Your task to perform on an android device: turn on javascript in the chrome app Image 0: 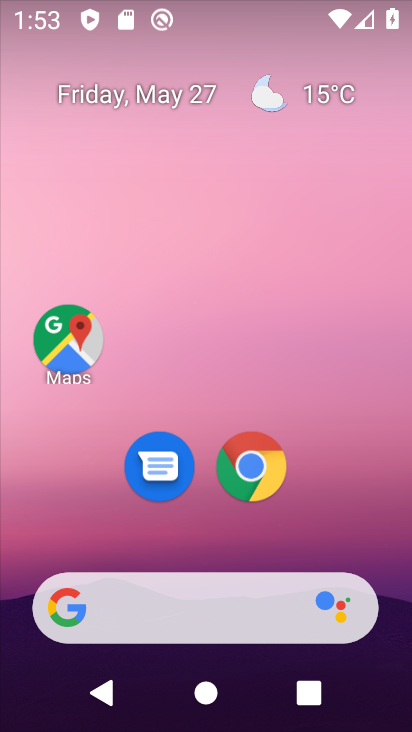
Step 0: drag from (352, 472) to (337, 155)
Your task to perform on an android device: turn on javascript in the chrome app Image 1: 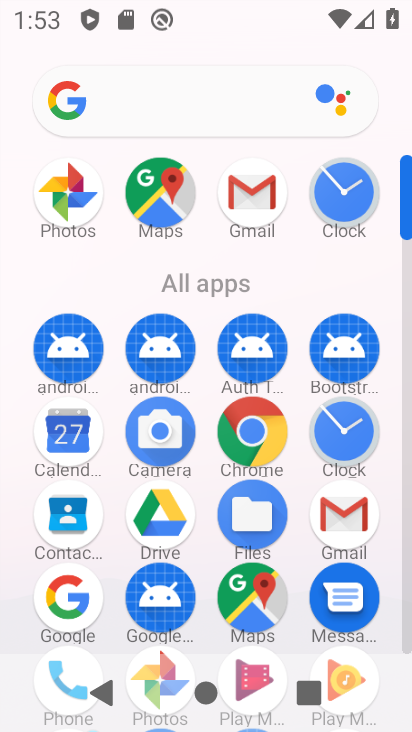
Step 1: drag from (358, 454) to (361, 165)
Your task to perform on an android device: turn on javascript in the chrome app Image 2: 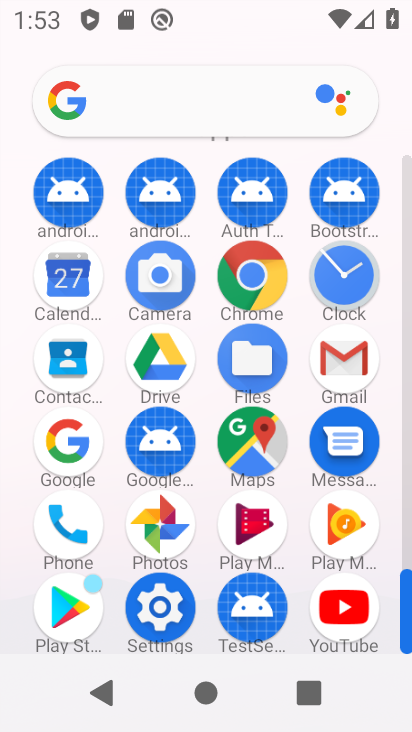
Step 2: click (229, 270)
Your task to perform on an android device: turn on javascript in the chrome app Image 3: 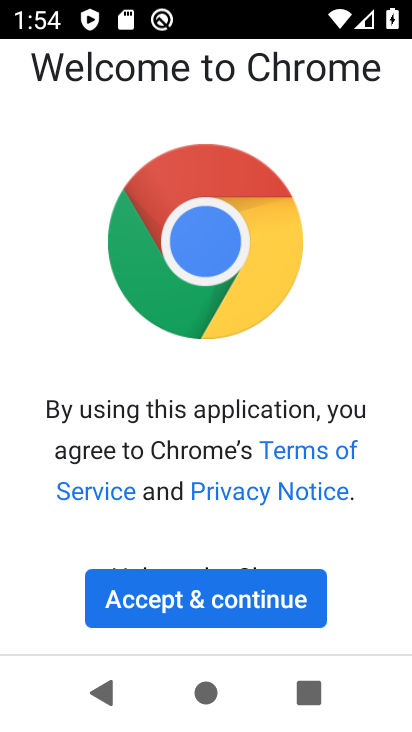
Step 3: click (242, 599)
Your task to perform on an android device: turn on javascript in the chrome app Image 4: 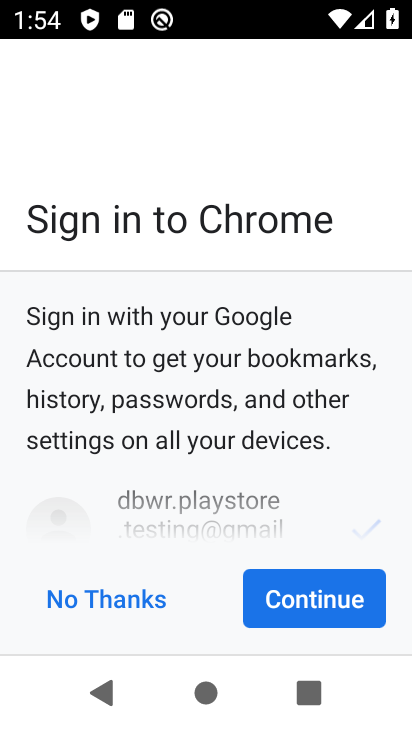
Step 4: click (282, 602)
Your task to perform on an android device: turn on javascript in the chrome app Image 5: 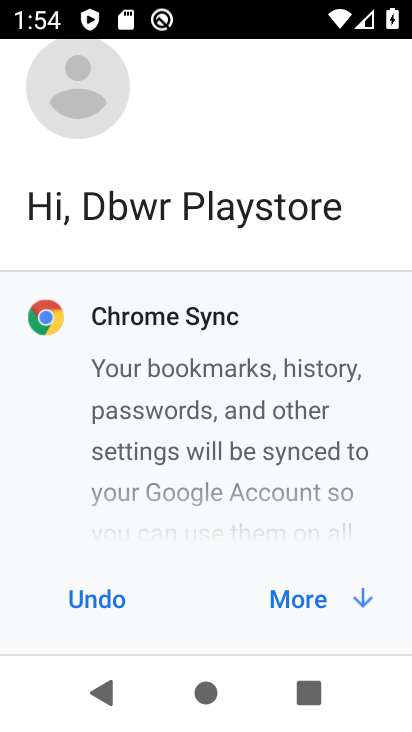
Step 5: click (282, 602)
Your task to perform on an android device: turn on javascript in the chrome app Image 6: 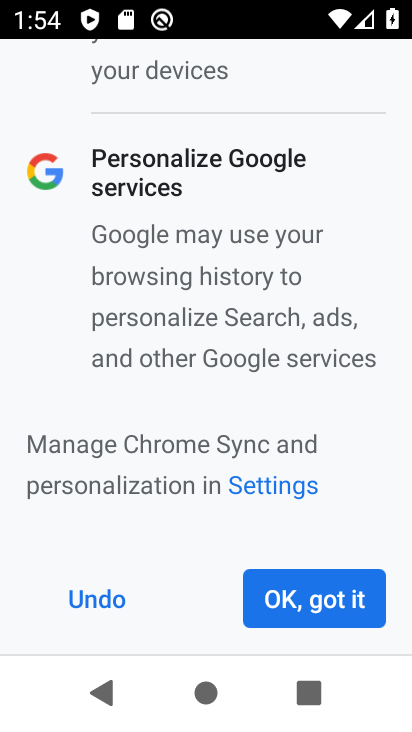
Step 6: click (282, 602)
Your task to perform on an android device: turn on javascript in the chrome app Image 7: 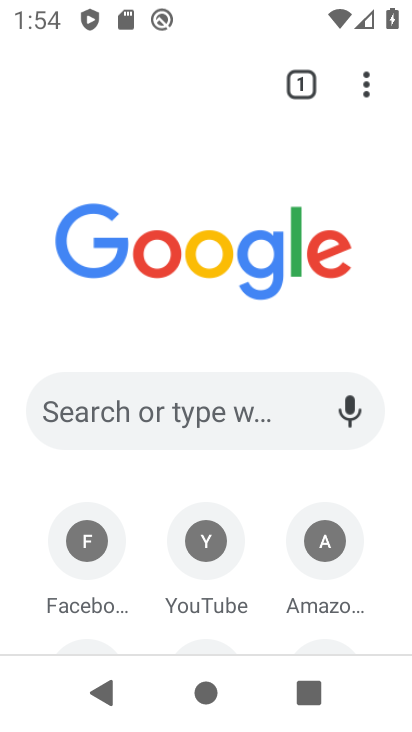
Step 7: drag from (365, 93) to (149, 519)
Your task to perform on an android device: turn on javascript in the chrome app Image 8: 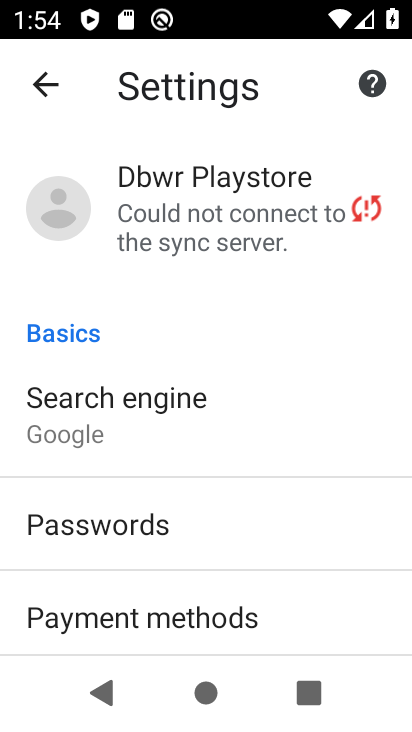
Step 8: drag from (342, 595) to (252, 186)
Your task to perform on an android device: turn on javascript in the chrome app Image 9: 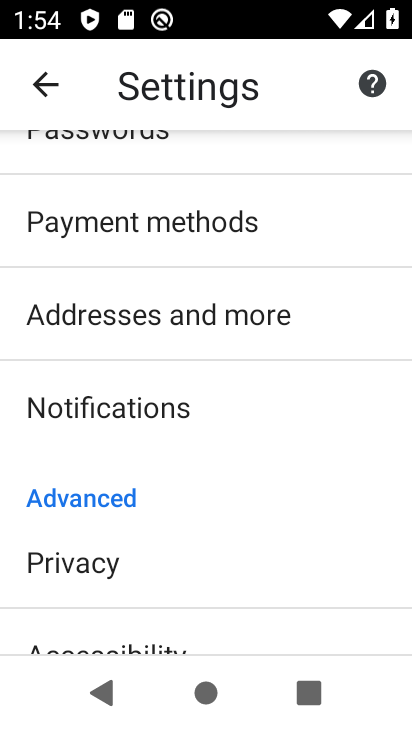
Step 9: drag from (257, 541) to (260, 237)
Your task to perform on an android device: turn on javascript in the chrome app Image 10: 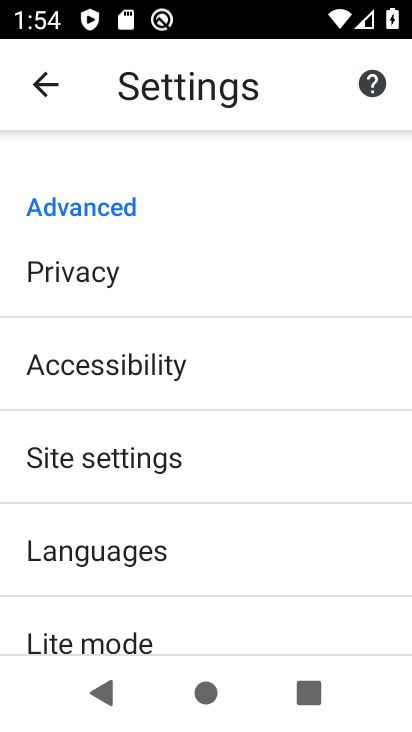
Step 10: drag from (274, 526) to (274, 304)
Your task to perform on an android device: turn on javascript in the chrome app Image 11: 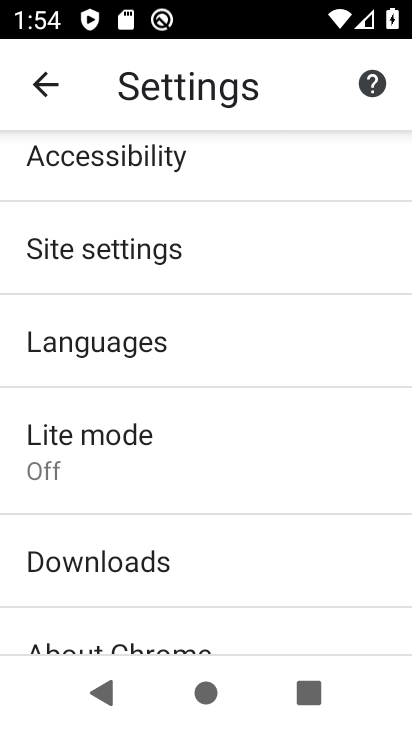
Step 11: click (210, 245)
Your task to perform on an android device: turn on javascript in the chrome app Image 12: 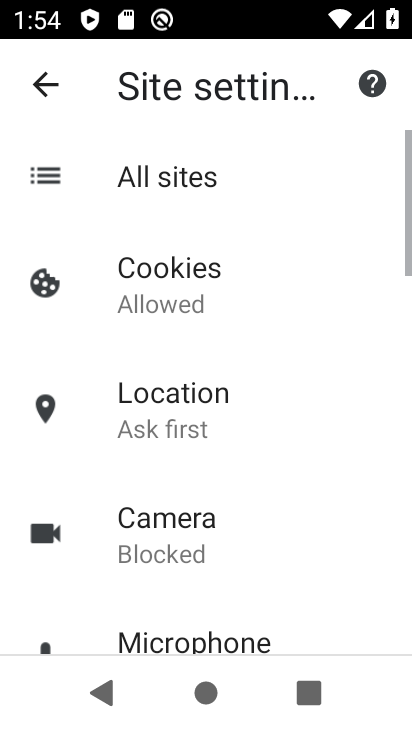
Step 12: drag from (234, 606) to (230, 247)
Your task to perform on an android device: turn on javascript in the chrome app Image 13: 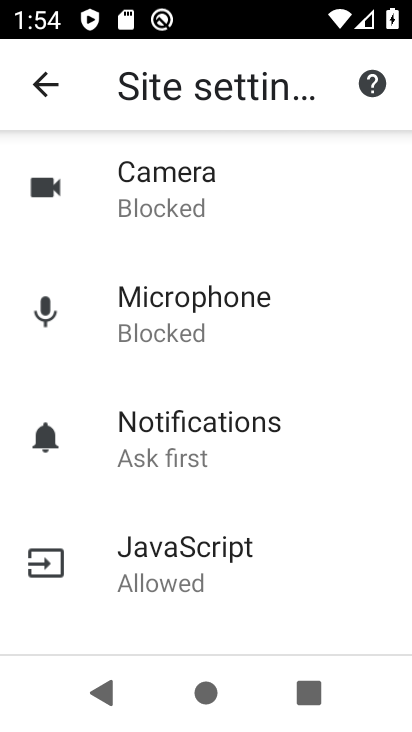
Step 13: click (231, 560)
Your task to perform on an android device: turn on javascript in the chrome app Image 14: 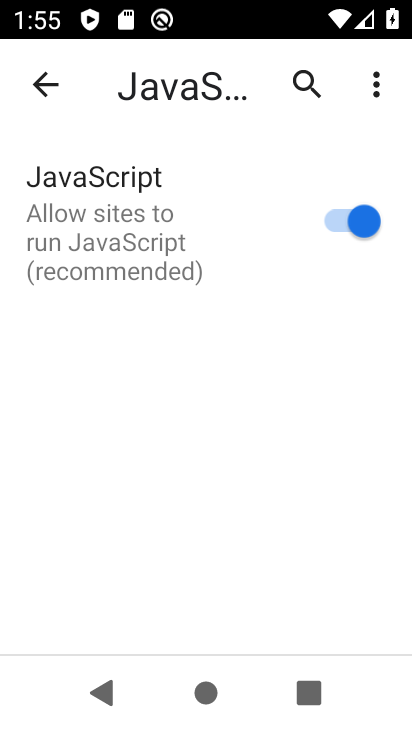
Step 14: task complete